Your task to perform on an android device: turn on showing notifications on the lock screen Image 0: 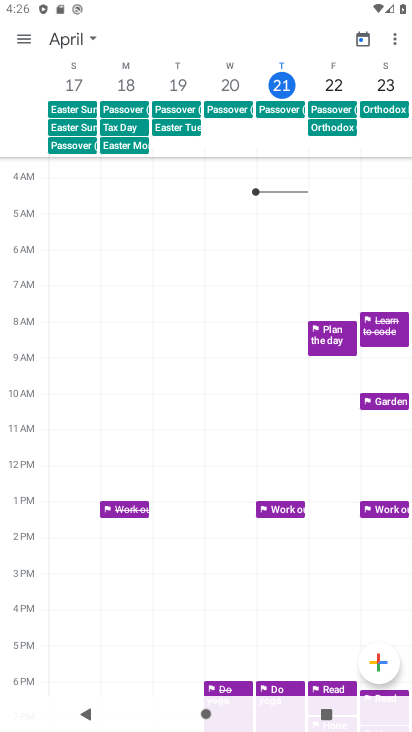
Step 0: press home button
Your task to perform on an android device: turn on showing notifications on the lock screen Image 1: 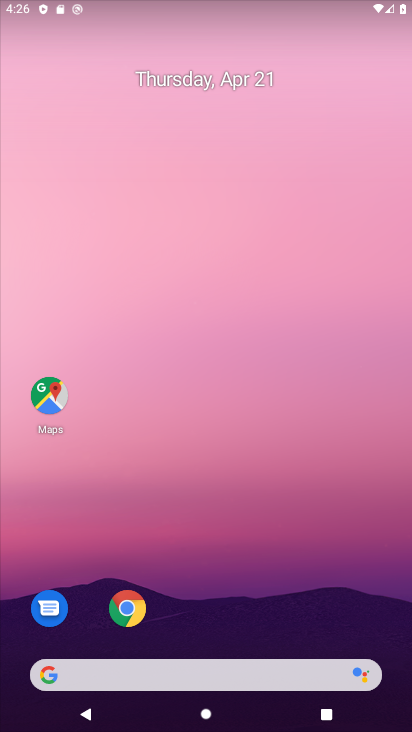
Step 1: drag from (293, 612) to (250, 181)
Your task to perform on an android device: turn on showing notifications on the lock screen Image 2: 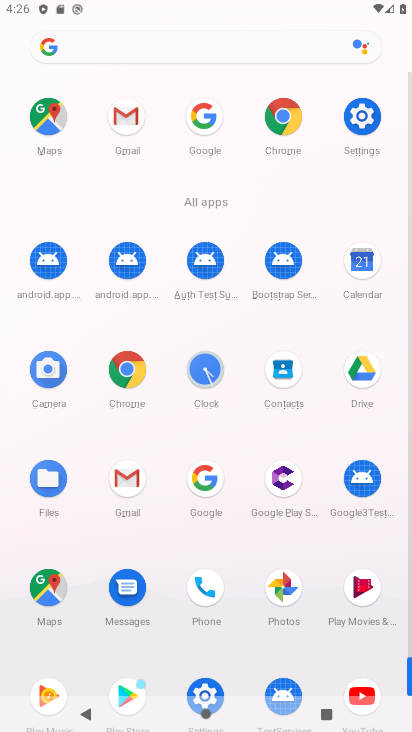
Step 2: click (360, 133)
Your task to perform on an android device: turn on showing notifications on the lock screen Image 3: 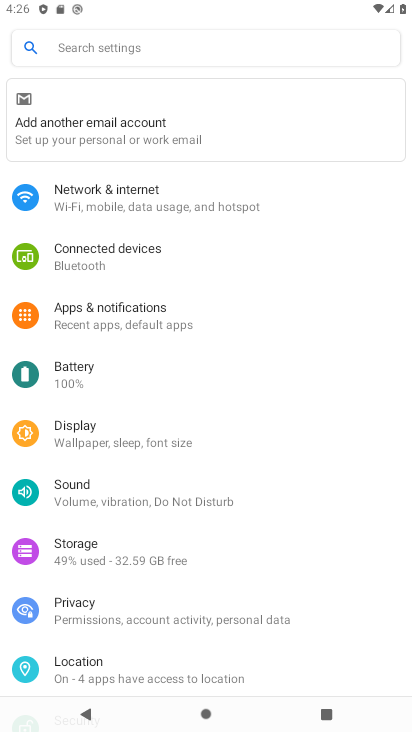
Step 3: click (97, 328)
Your task to perform on an android device: turn on showing notifications on the lock screen Image 4: 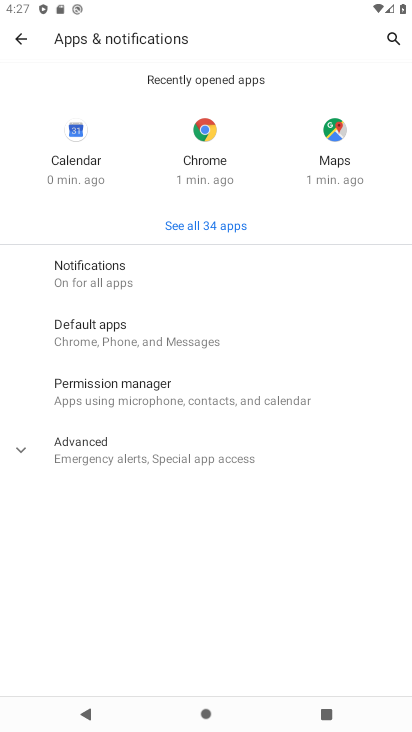
Step 4: click (110, 275)
Your task to perform on an android device: turn on showing notifications on the lock screen Image 5: 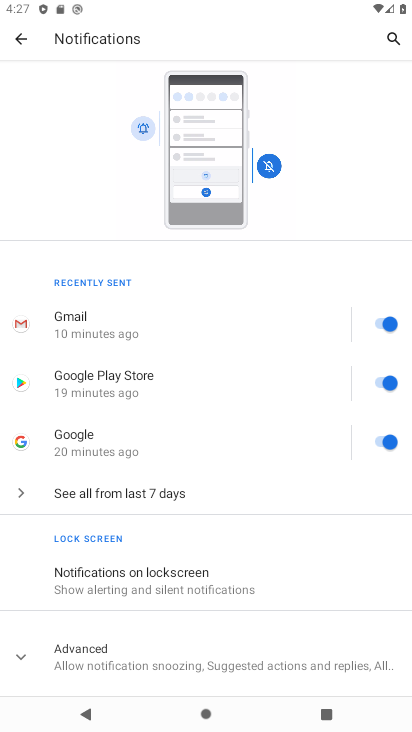
Step 5: click (187, 586)
Your task to perform on an android device: turn on showing notifications on the lock screen Image 6: 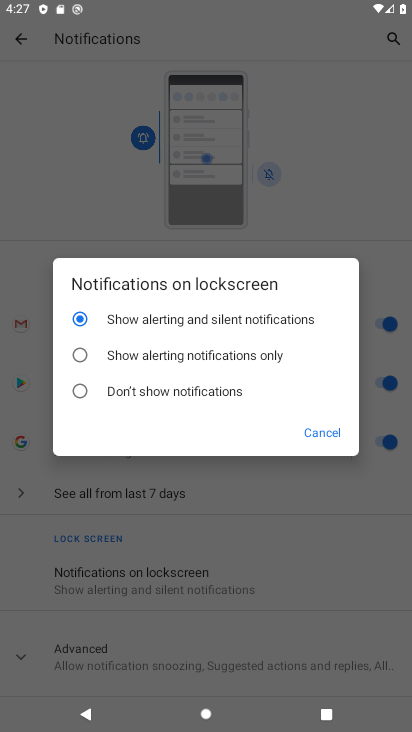
Step 6: click (82, 394)
Your task to perform on an android device: turn on showing notifications on the lock screen Image 7: 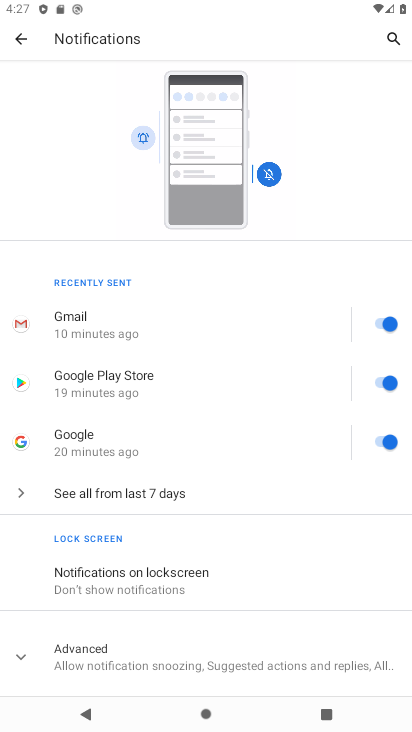
Step 7: click (109, 591)
Your task to perform on an android device: turn on showing notifications on the lock screen Image 8: 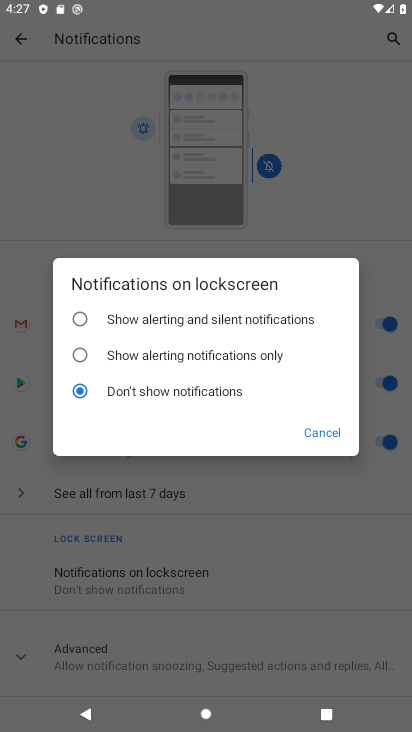
Step 8: click (90, 317)
Your task to perform on an android device: turn on showing notifications on the lock screen Image 9: 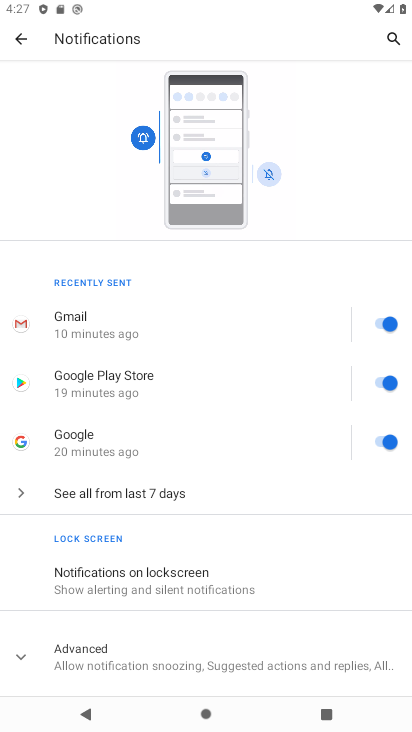
Step 9: task complete